Your task to perform on an android device: turn on priority inbox in the gmail app Image 0: 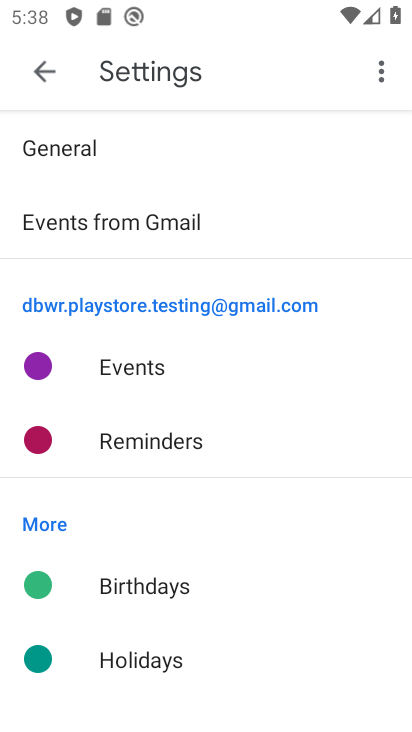
Step 0: press home button
Your task to perform on an android device: turn on priority inbox in the gmail app Image 1: 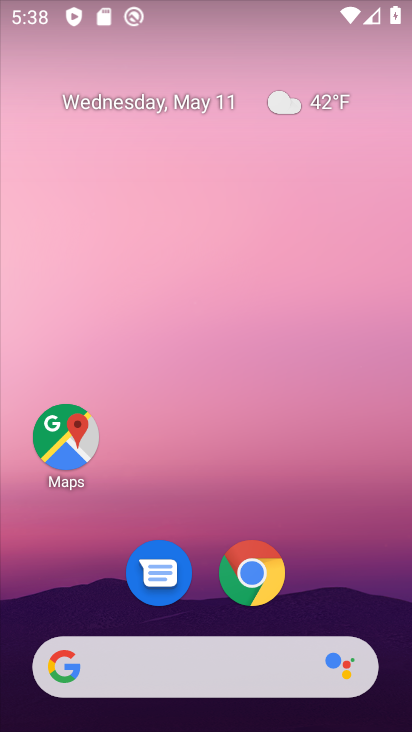
Step 1: click (410, 135)
Your task to perform on an android device: turn on priority inbox in the gmail app Image 2: 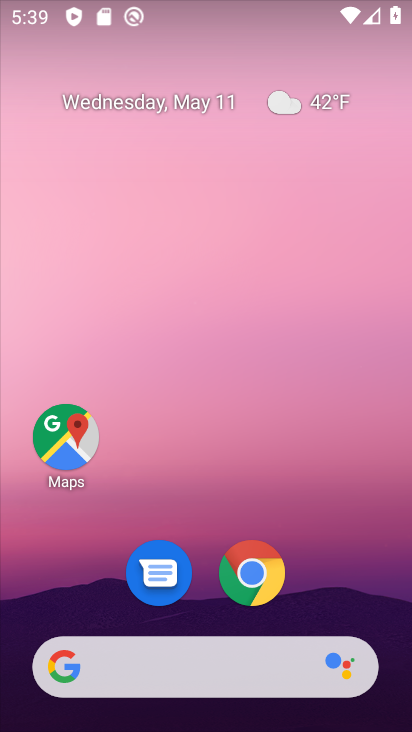
Step 2: drag from (193, 467) to (186, 75)
Your task to perform on an android device: turn on priority inbox in the gmail app Image 3: 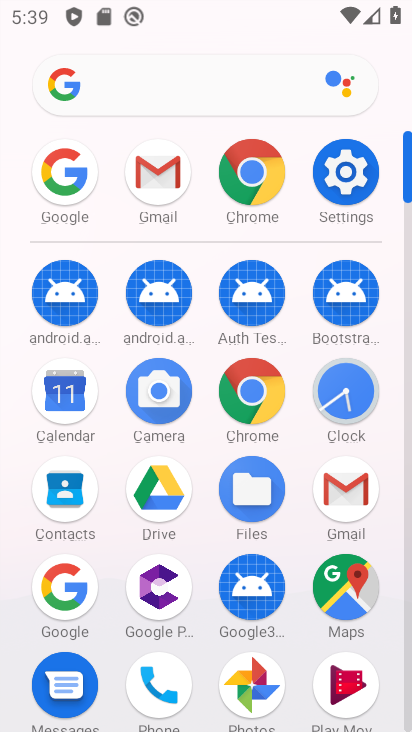
Step 3: click (158, 180)
Your task to perform on an android device: turn on priority inbox in the gmail app Image 4: 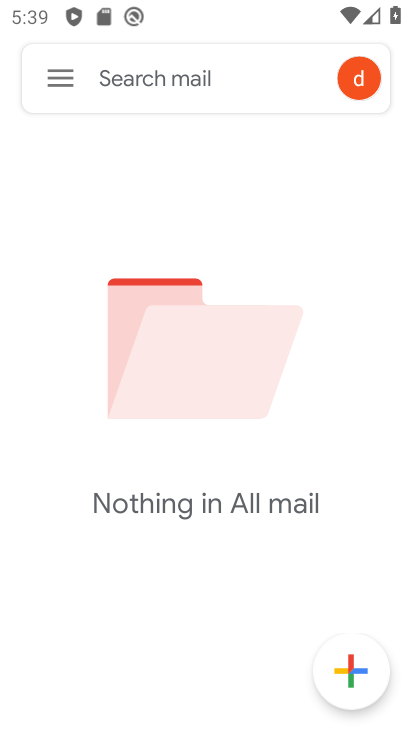
Step 4: click (65, 86)
Your task to perform on an android device: turn on priority inbox in the gmail app Image 5: 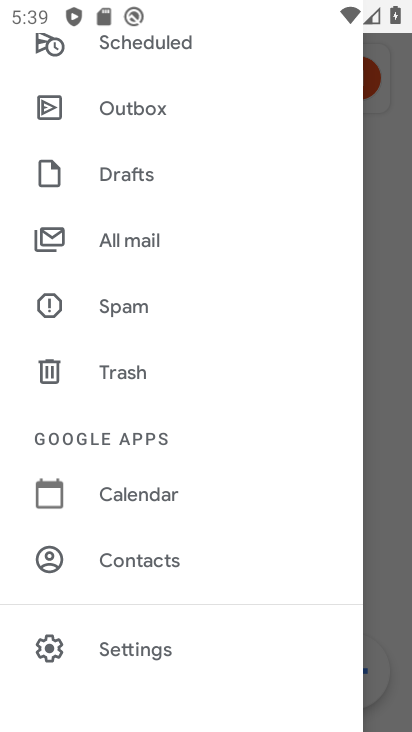
Step 5: click (153, 646)
Your task to perform on an android device: turn on priority inbox in the gmail app Image 6: 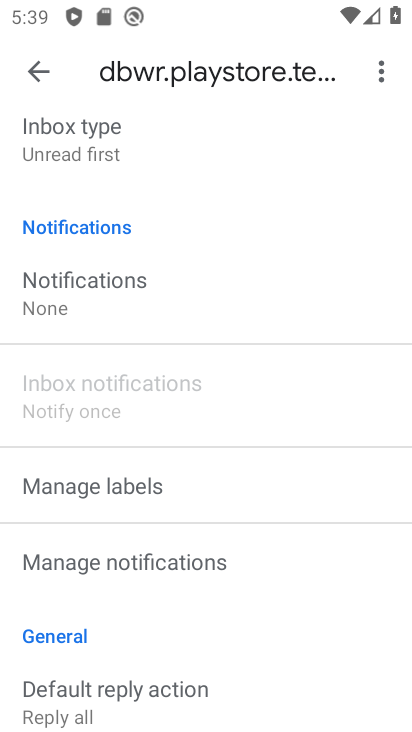
Step 6: click (233, 368)
Your task to perform on an android device: turn on priority inbox in the gmail app Image 7: 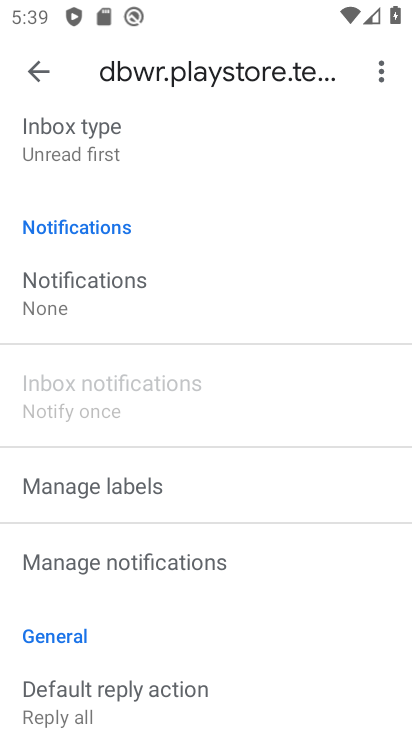
Step 7: click (79, 145)
Your task to perform on an android device: turn on priority inbox in the gmail app Image 8: 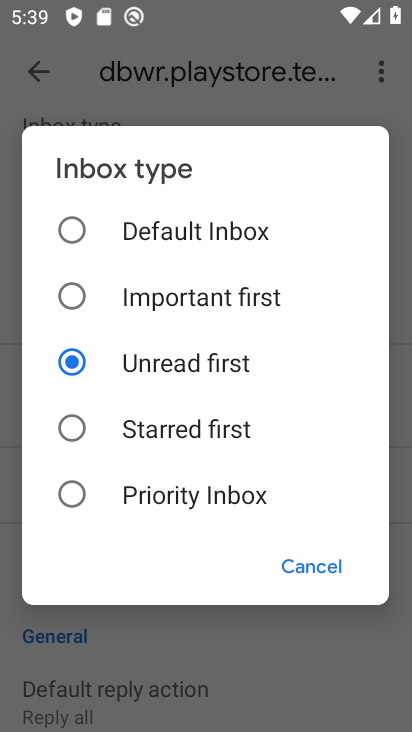
Step 8: click (79, 494)
Your task to perform on an android device: turn on priority inbox in the gmail app Image 9: 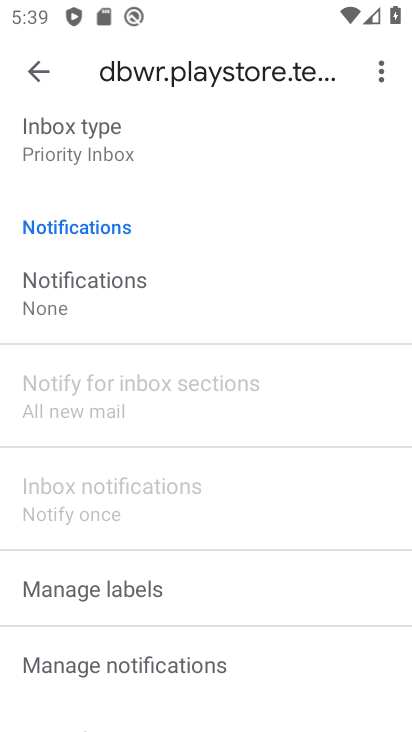
Step 9: task complete